Your task to perform on an android device: Go to Wikipedia Image 0: 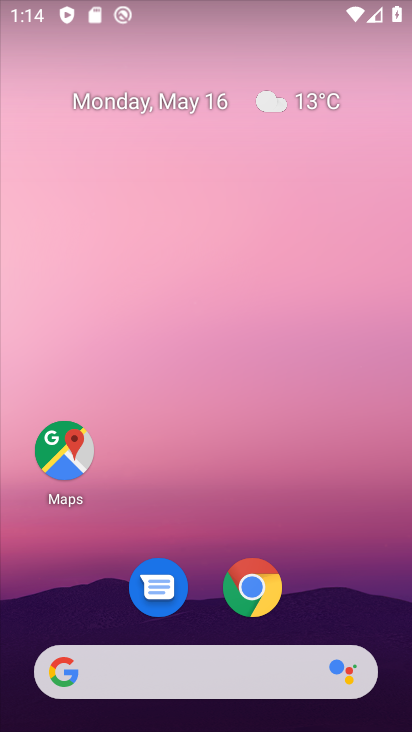
Step 0: click (247, 588)
Your task to perform on an android device: Go to Wikipedia Image 1: 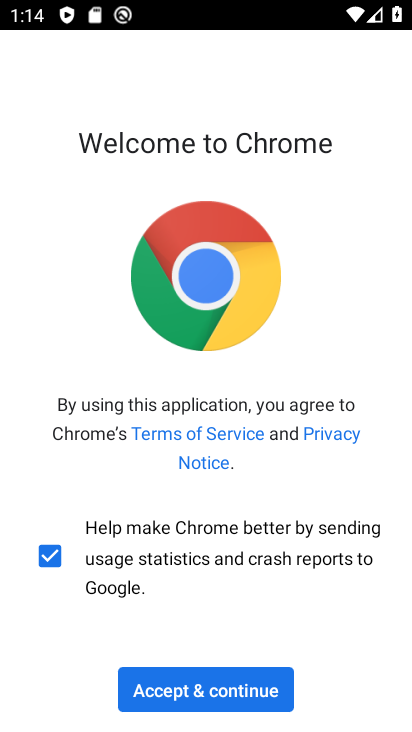
Step 1: click (229, 696)
Your task to perform on an android device: Go to Wikipedia Image 2: 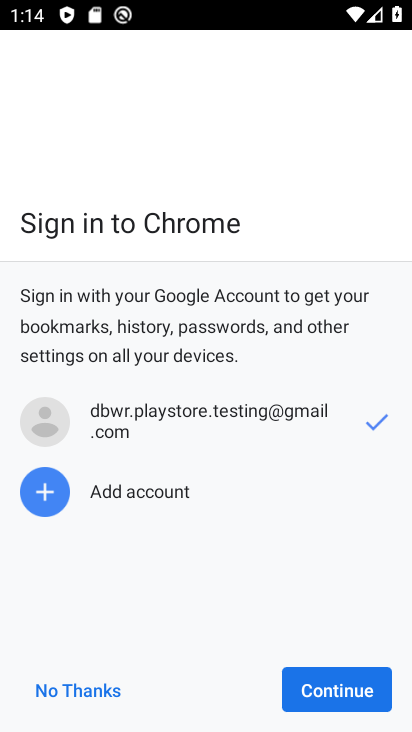
Step 2: click (316, 696)
Your task to perform on an android device: Go to Wikipedia Image 3: 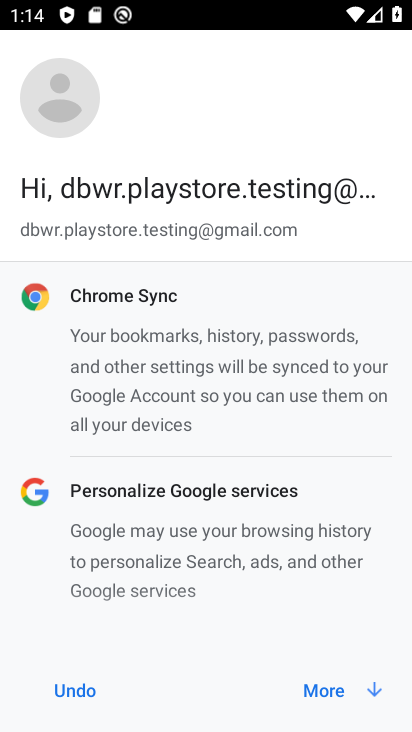
Step 3: click (314, 691)
Your task to perform on an android device: Go to Wikipedia Image 4: 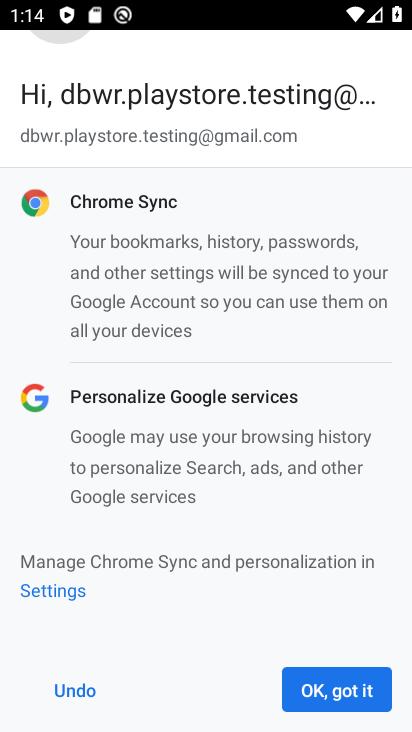
Step 4: click (314, 691)
Your task to perform on an android device: Go to Wikipedia Image 5: 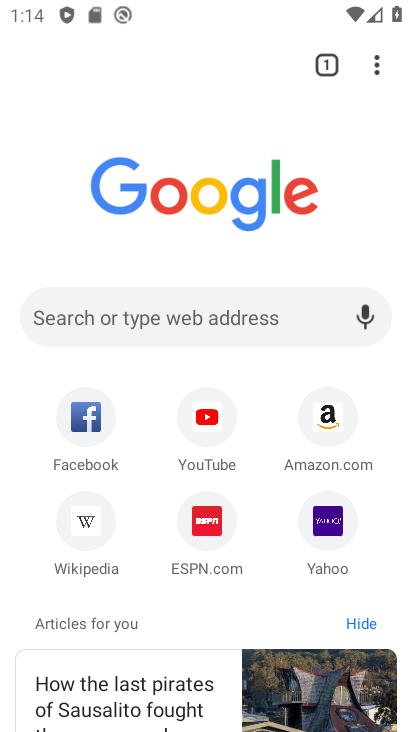
Step 5: click (372, 65)
Your task to perform on an android device: Go to Wikipedia Image 6: 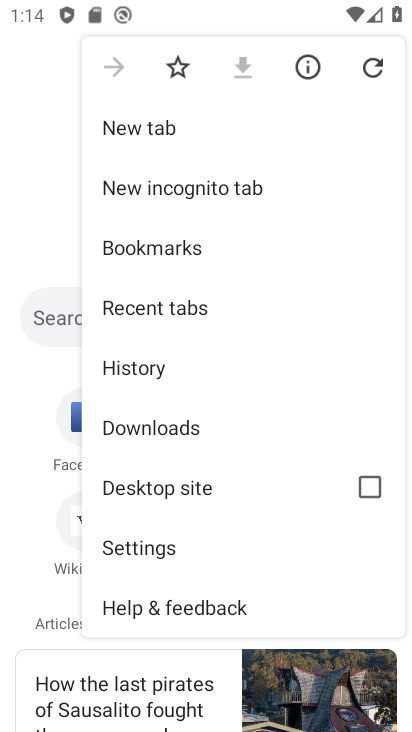
Step 6: drag from (197, 572) to (197, 200)
Your task to perform on an android device: Go to Wikipedia Image 7: 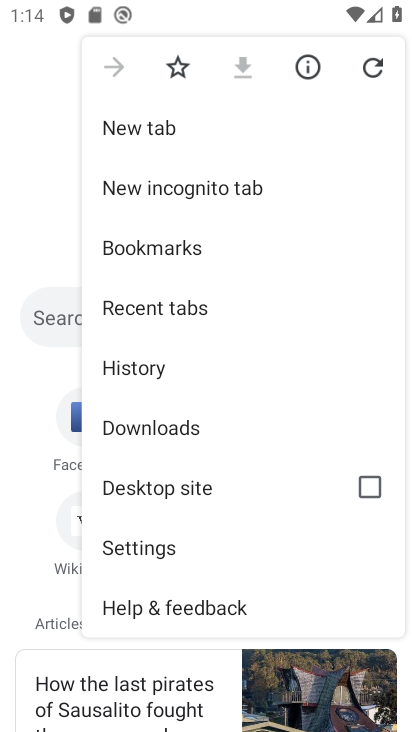
Step 7: click (54, 147)
Your task to perform on an android device: Go to Wikipedia Image 8: 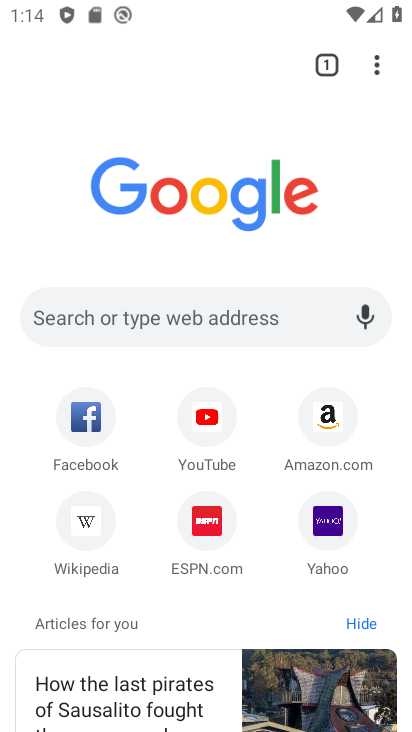
Step 8: click (77, 528)
Your task to perform on an android device: Go to Wikipedia Image 9: 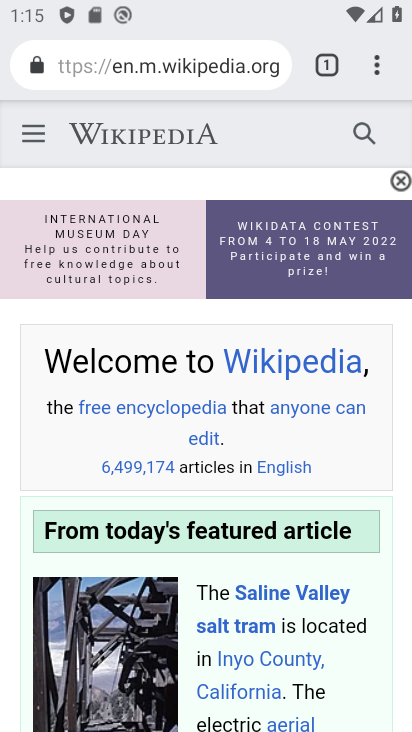
Step 9: task complete